Your task to perform on an android device: Open location settings Image 0: 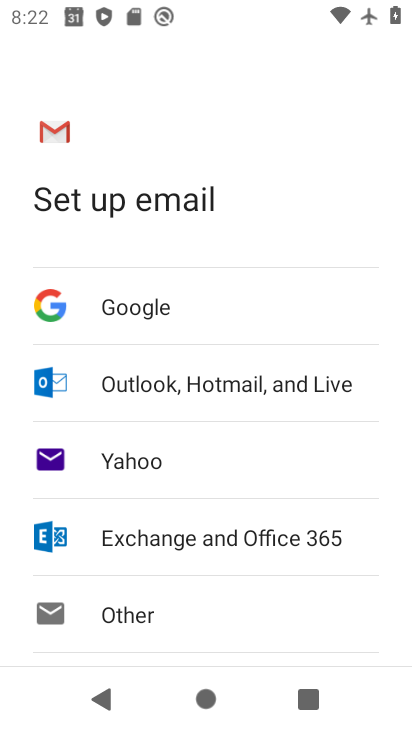
Step 0: press home button
Your task to perform on an android device: Open location settings Image 1: 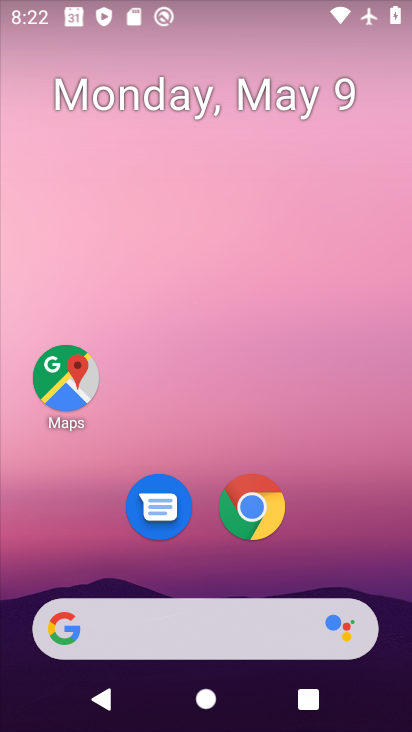
Step 1: drag from (233, 579) to (208, 10)
Your task to perform on an android device: Open location settings Image 2: 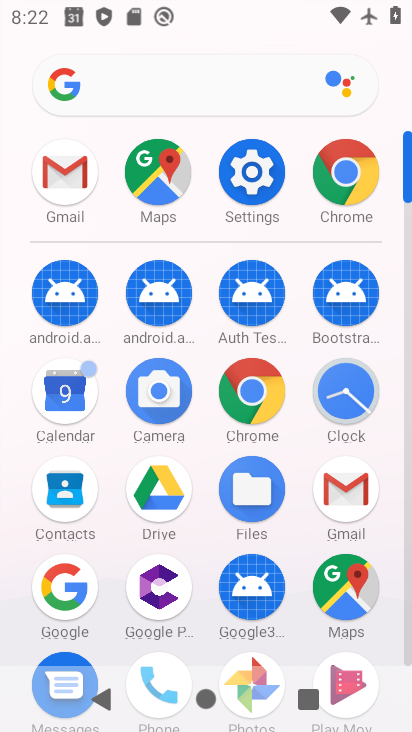
Step 2: click (244, 165)
Your task to perform on an android device: Open location settings Image 3: 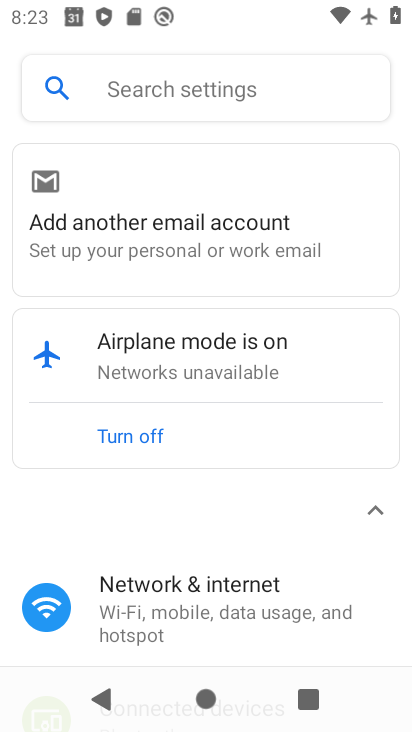
Step 3: drag from (228, 475) to (233, 61)
Your task to perform on an android device: Open location settings Image 4: 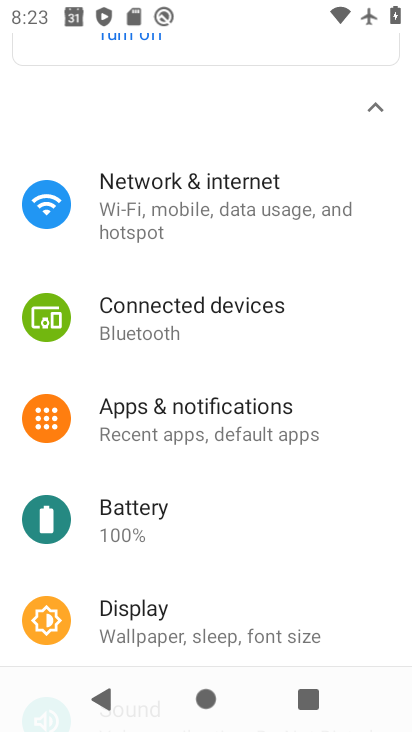
Step 4: drag from (225, 493) to (219, 47)
Your task to perform on an android device: Open location settings Image 5: 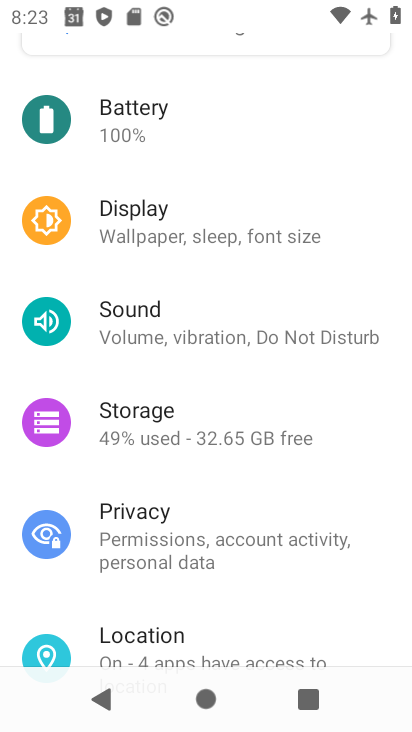
Step 5: click (191, 615)
Your task to perform on an android device: Open location settings Image 6: 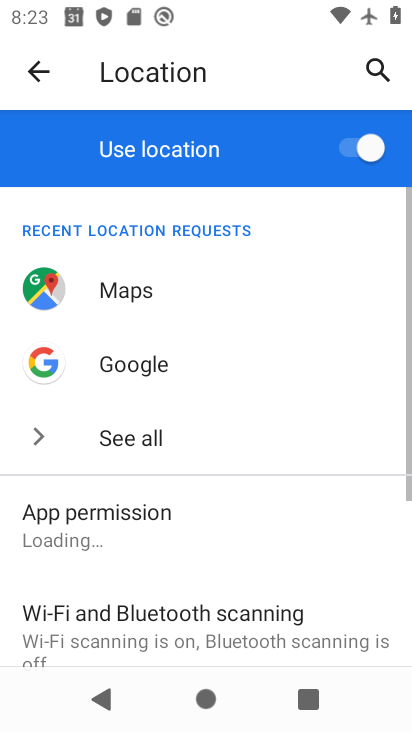
Step 6: drag from (221, 566) to (223, 186)
Your task to perform on an android device: Open location settings Image 7: 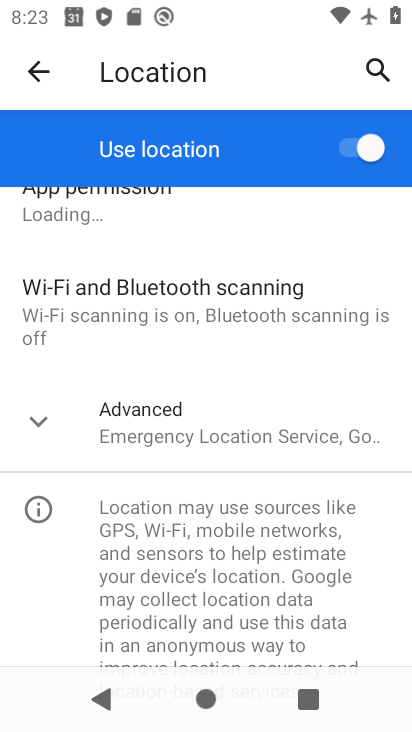
Step 7: click (125, 425)
Your task to perform on an android device: Open location settings Image 8: 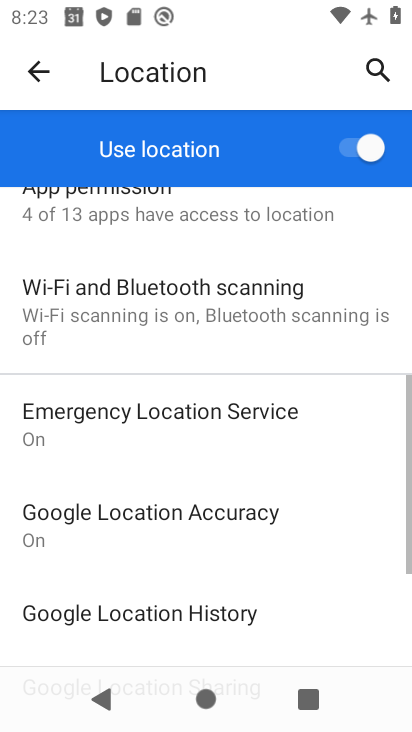
Step 8: task complete